Your task to perform on an android device: Open notification settings Image 0: 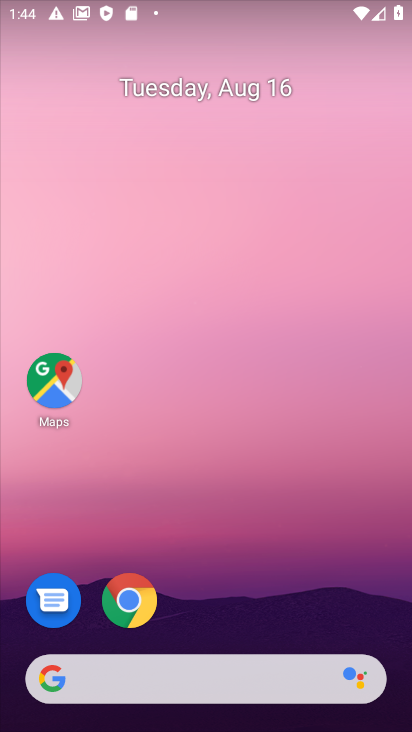
Step 0: drag from (204, 673) to (319, 116)
Your task to perform on an android device: Open notification settings Image 1: 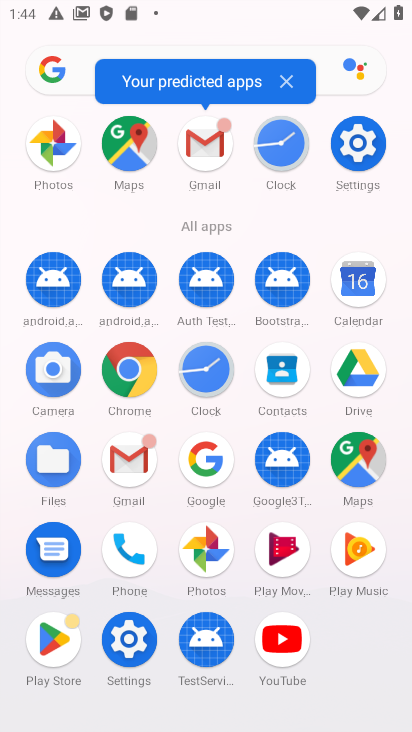
Step 1: click (136, 637)
Your task to perform on an android device: Open notification settings Image 2: 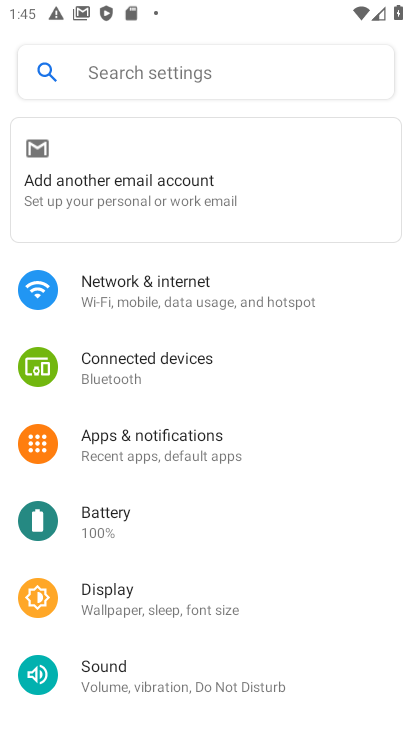
Step 2: click (155, 433)
Your task to perform on an android device: Open notification settings Image 3: 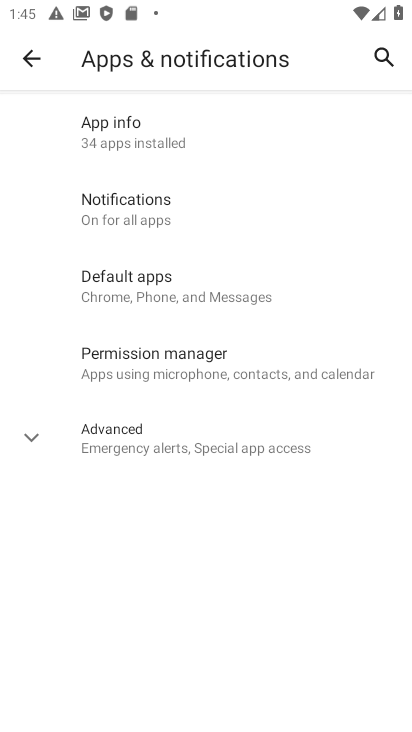
Step 3: task complete